Your task to perform on an android device: choose inbox layout in the gmail app Image 0: 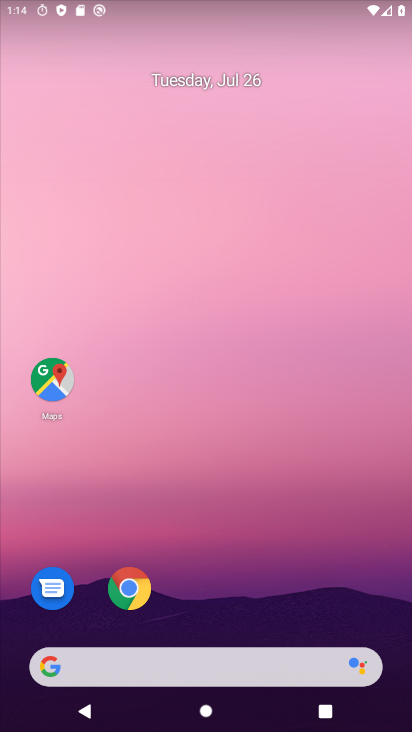
Step 0: drag from (268, 614) to (188, 147)
Your task to perform on an android device: choose inbox layout in the gmail app Image 1: 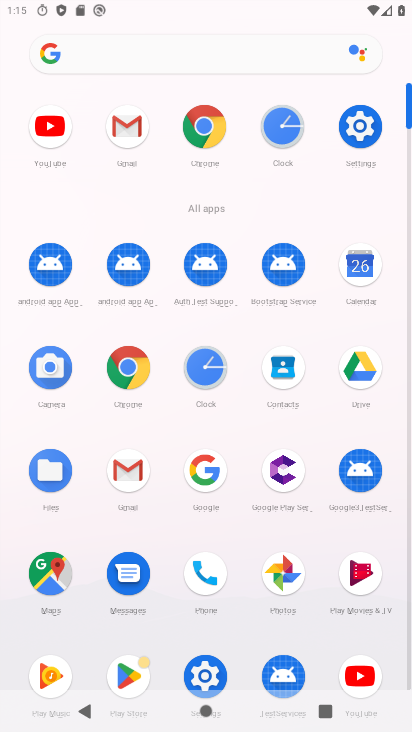
Step 1: click (136, 484)
Your task to perform on an android device: choose inbox layout in the gmail app Image 2: 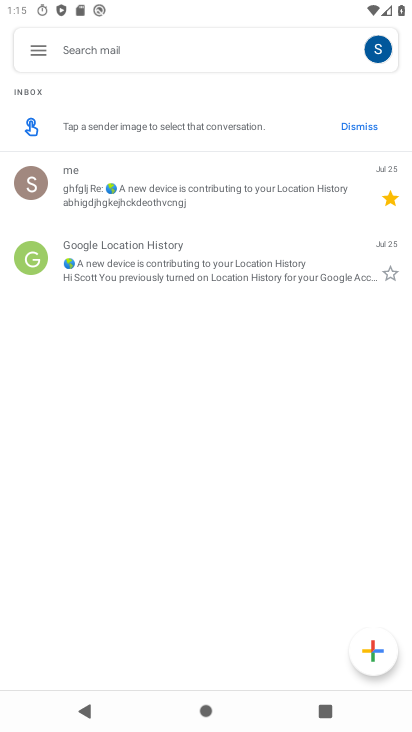
Step 2: click (32, 55)
Your task to perform on an android device: choose inbox layout in the gmail app Image 3: 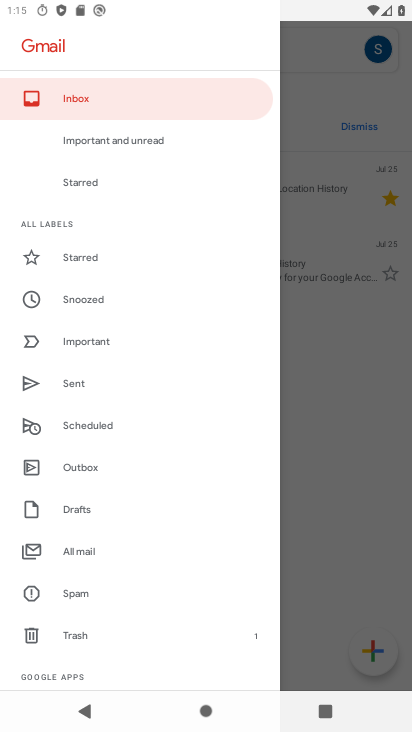
Step 3: drag from (162, 596) to (55, 277)
Your task to perform on an android device: choose inbox layout in the gmail app Image 4: 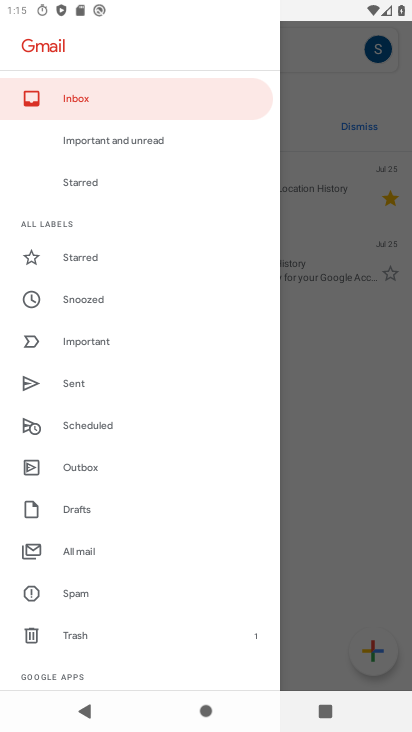
Step 4: drag from (145, 590) to (142, 463)
Your task to perform on an android device: choose inbox layout in the gmail app Image 5: 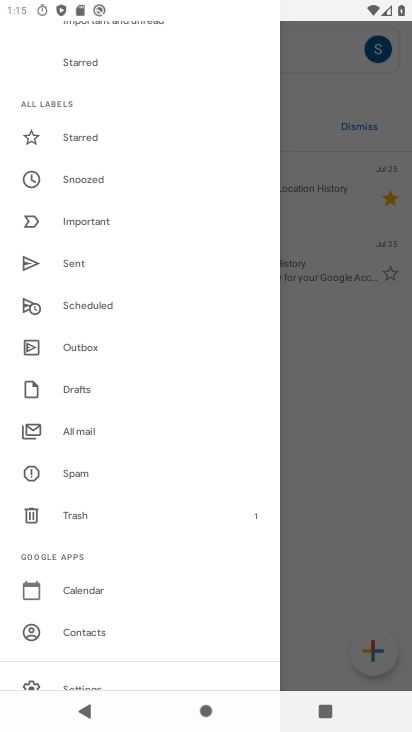
Step 5: click (99, 685)
Your task to perform on an android device: choose inbox layout in the gmail app Image 6: 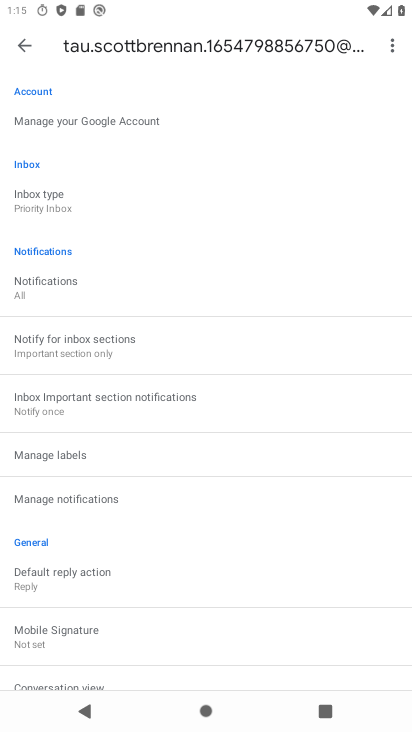
Step 6: click (113, 200)
Your task to perform on an android device: choose inbox layout in the gmail app Image 7: 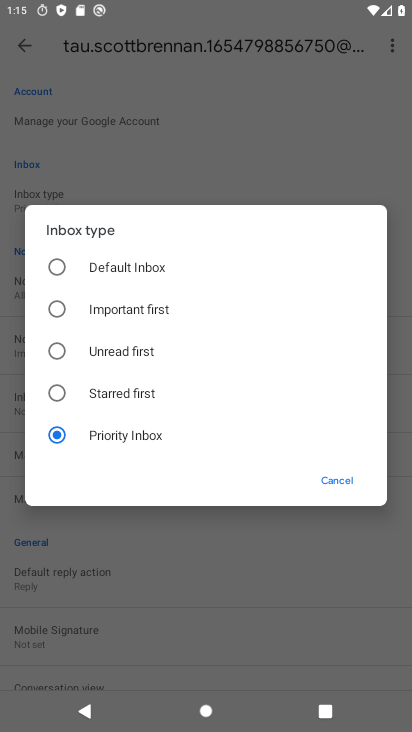
Step 7: click (57, 267)
Your task to perform on an android device: choose inbox layout in the gmail app Image 8: 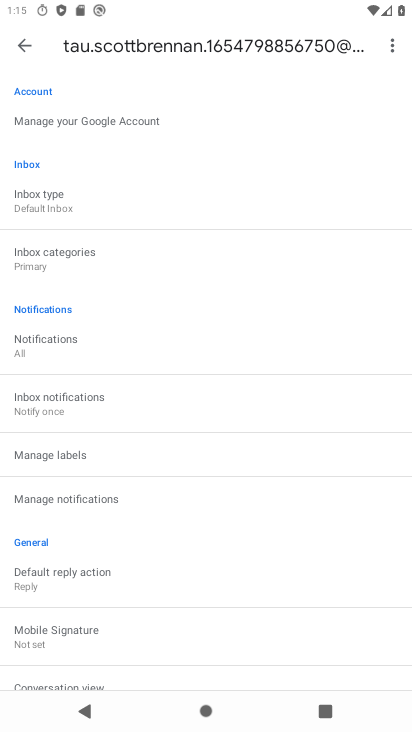
Step 8: task complete